Your task to perform on an android device: Open CNN.com Image 0: 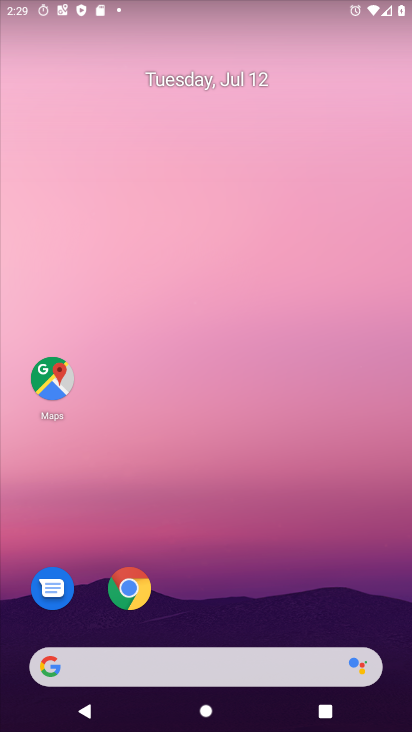
Step 0: click (190, 156)
Your task to perform on an android device: Open CNN.com Image 1: 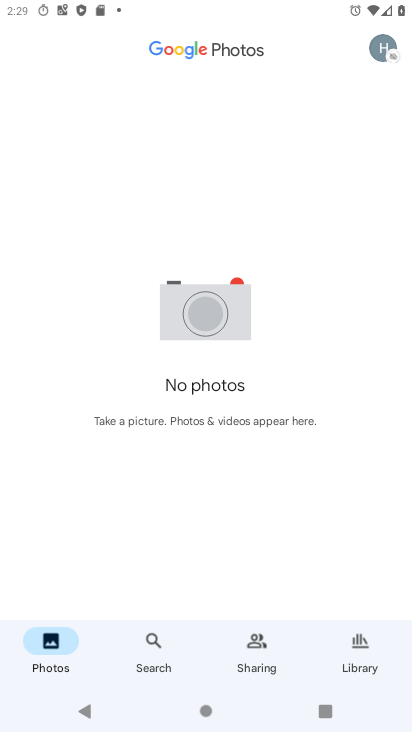
Step 1: press home button
Your task to perform on an android device: Open CNN.com Image 2: 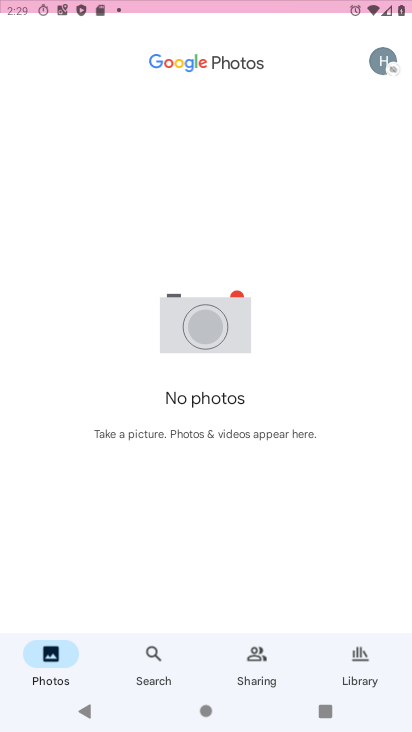
Step 2: drag from (197, 588) to (237, 99)
Your task to perform on an android device: Open CNN.com Image 3: 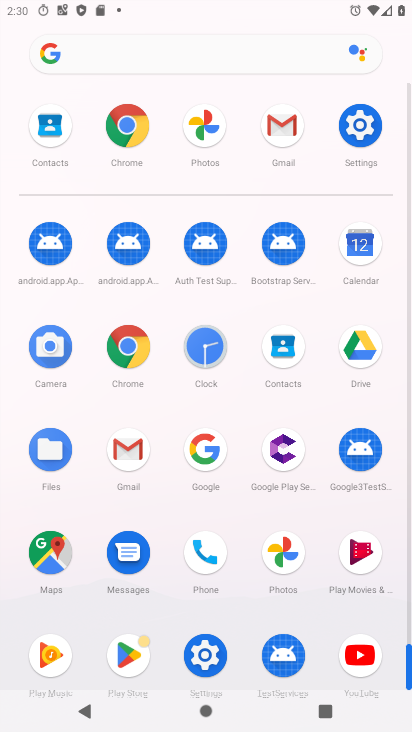
Step 3: click (168, 53)
Your task to perform on an android device: Open CNN.com Image 4: 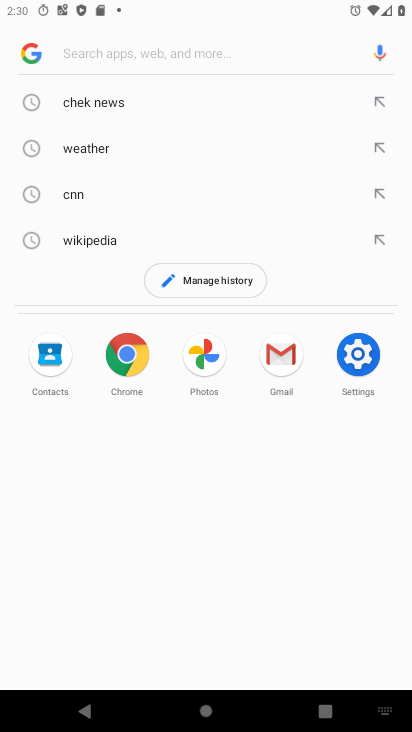
Step 4: click (95, 207)
Your task to perform on an android device: Open CNN.com Image 5: 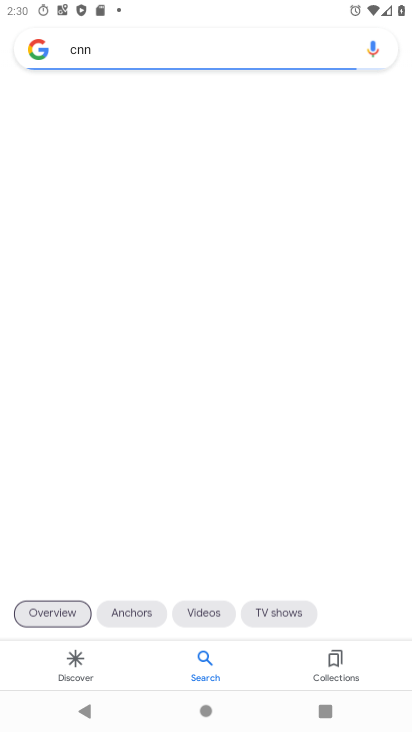
Step 5: drag from (158, 427) to (210, 134)
Your task to perform on an android device: Open CNN.com Image 6: 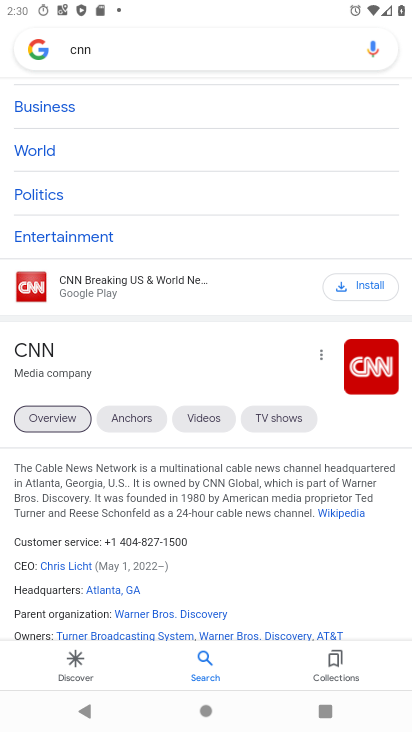
Step 6: drag from (111, 225) to (173, 619)
Your task to perform on an android device: Open CNN.com Image 7: 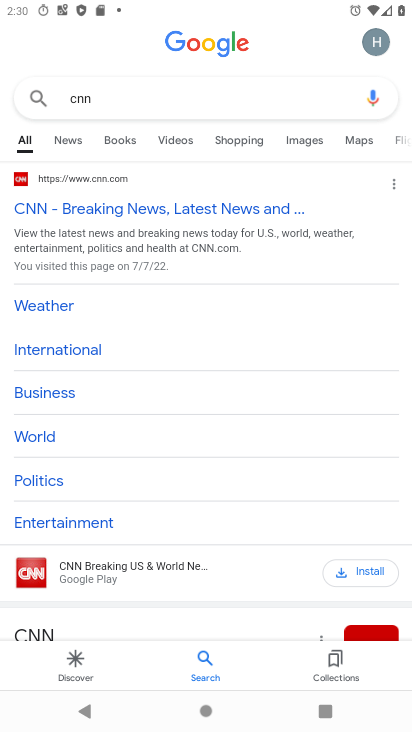
Step 7: click (103, 213)
Your task to perform on an android device: Open CNN.com Image 8: 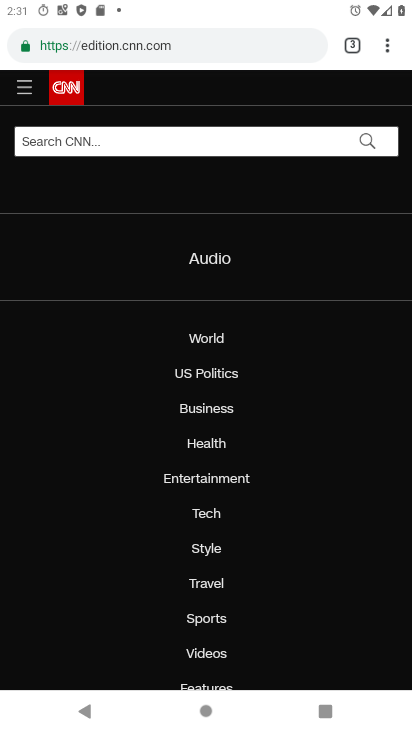
Step 8: task complete